Your task to perform on an android device: Go to settings Image 0: 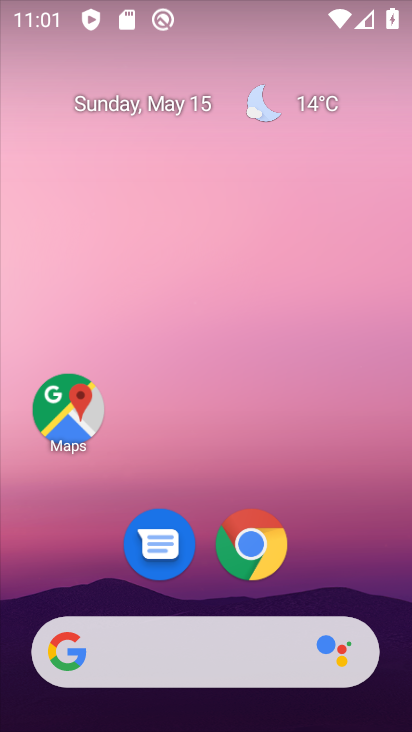
Step 0: drag from (72, 606) to (189, 126)
Your task to perform on an android device: Go to settings Image 1: 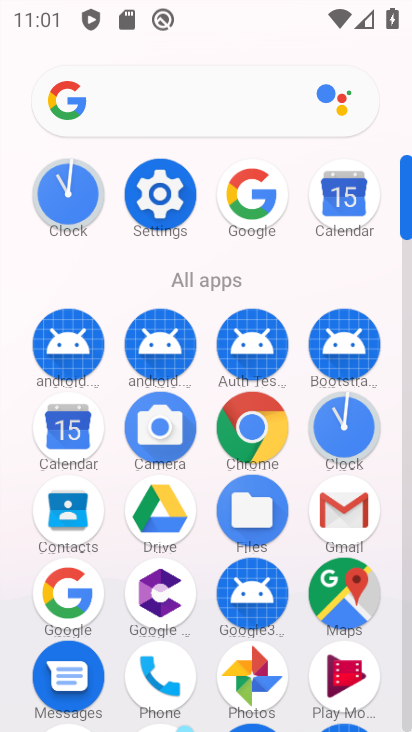
Step 1: drag from (181, 585) to (242, 315)
Your task to perform on an android device: Go to settings Image 2: 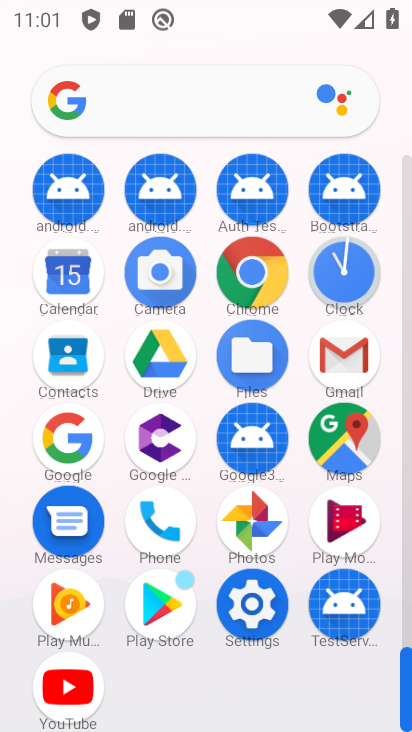
Step 2: click (257, 602)
Your task to perform on an android device: Go to settings Image 3: 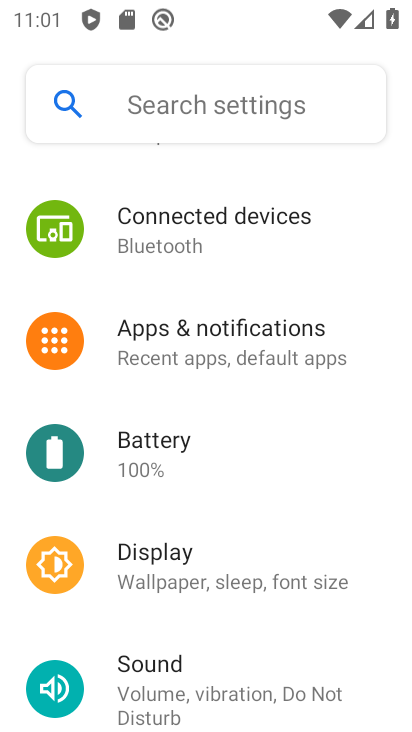
Step 3: task complete